Your task to perform on an android device: Open the stopwatch Image 0: 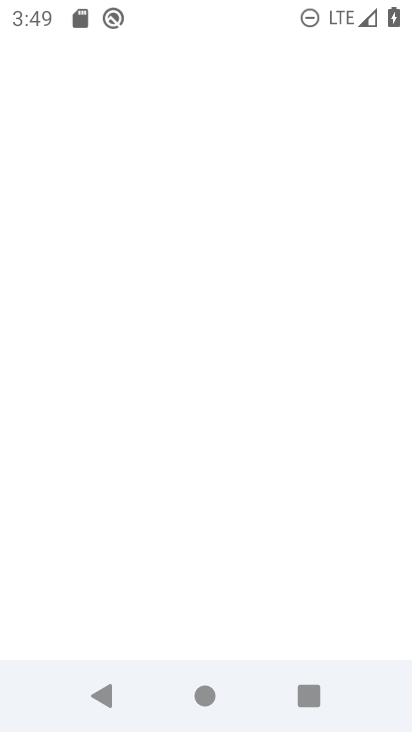
Step 0: press back button
Your task to perform on an android device: Open the stopwatch Image 1: 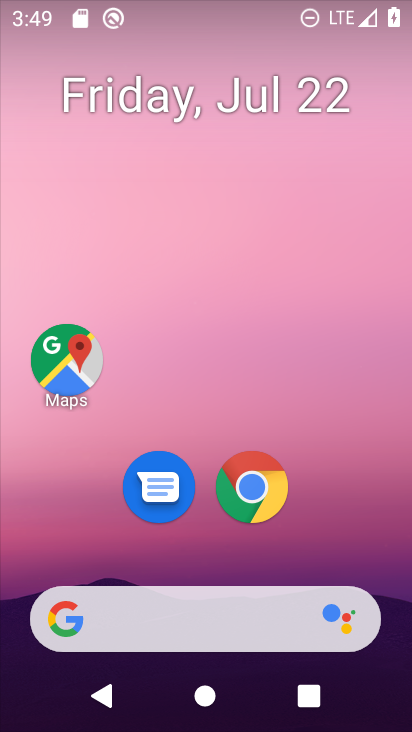
Step 1: drag from (193, 571) to (277, 6)
Your task to perform on an android device: Open the stopwatch Image 2: 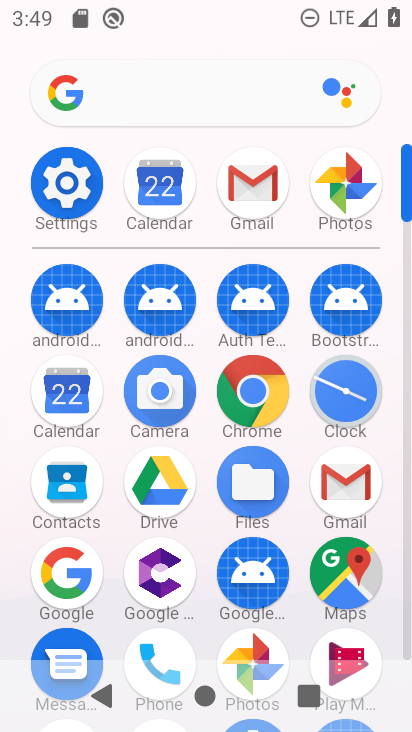
Step 2: click (358, 387)
Your task to perform on an android device: Open the stopwatch Image 3: 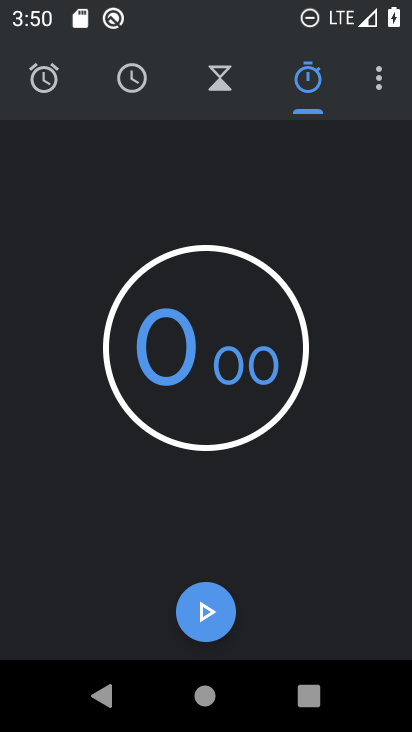
Step 3: task complete